Your task to perform on an android device: Show me popular videos on Youtube Image 0: 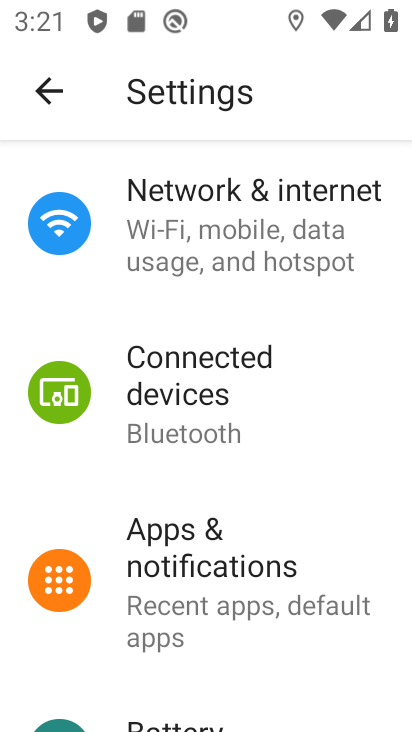
Step 0: press home button
Your task to perform on an android device: Show me popular videos on Youtube Image 1: 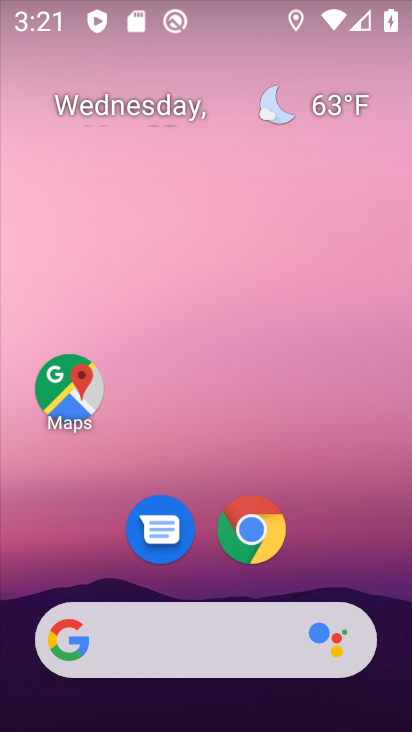
Step 1: drag from (55, 588) to (232, 168)
Your task to perform on an android device: Show me popular videos on Youtube Image 2: 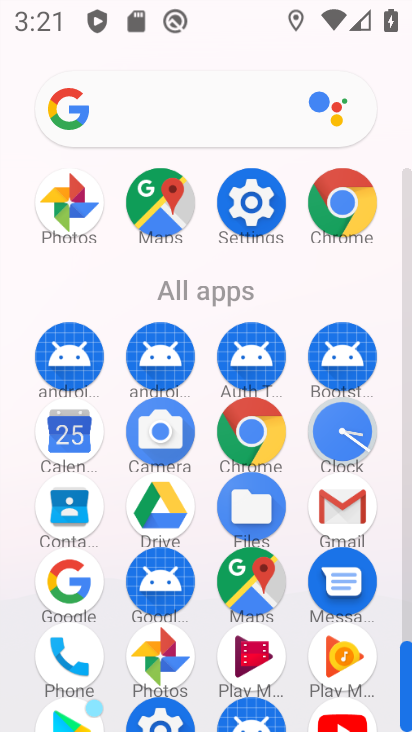
Step 2: drag from (272, 586) to (355, 295)
Your task to perform on an android device: Show me popular videos on Youtube Image 3: 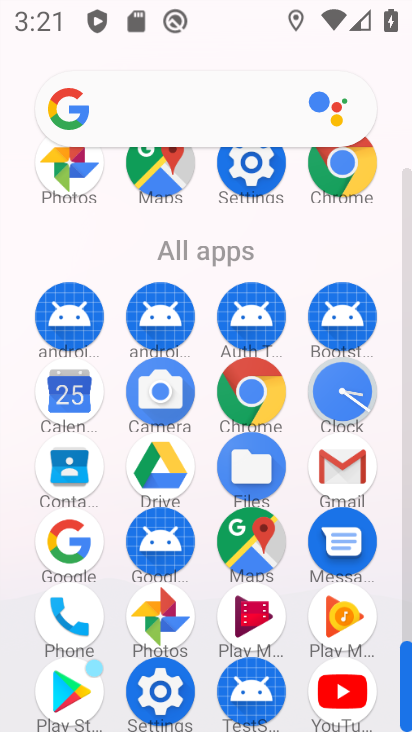
Step 3: click (342, 708)
Your task to perform on an android device: Show me popular videos on Youtube Image 4: 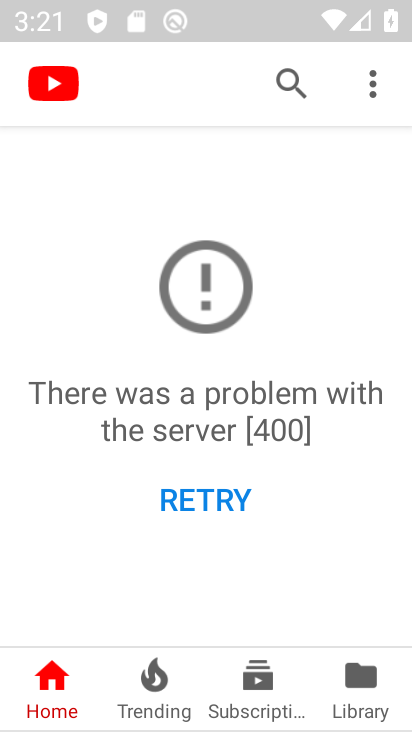
Step 4: click (381, 703)
Your task to perform on an android device: Show me popular videos on Youtube Image 5: 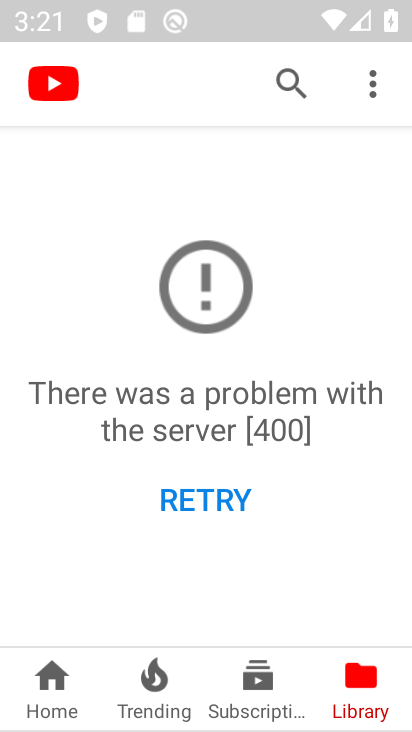
Step 5: task complete